Your task to perform on an android device: Go to sound settings Image 0: 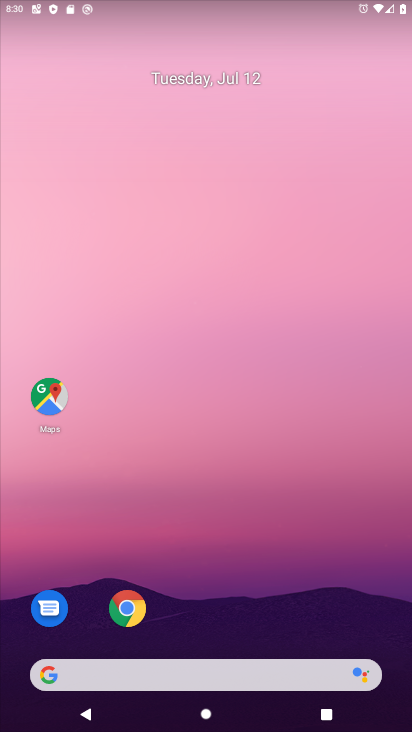
Step 0: drag from (247, 613) to (354, 0)
Your task to perform on an android device: Go to sound settings Image 1: 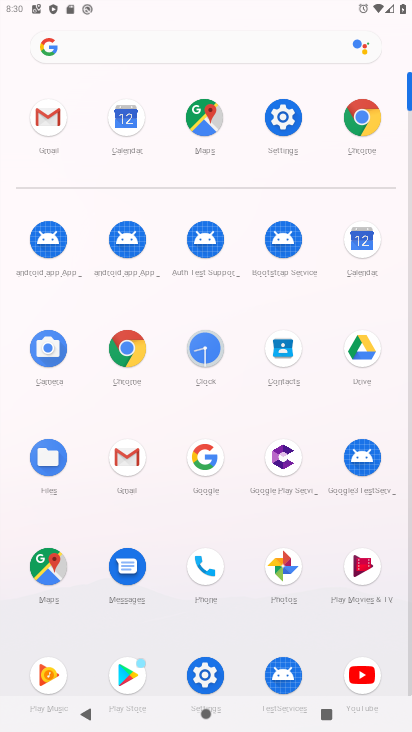
Step 1: click (286, 114)
Your task to perform on an android device: Go to sound settings Image 2: 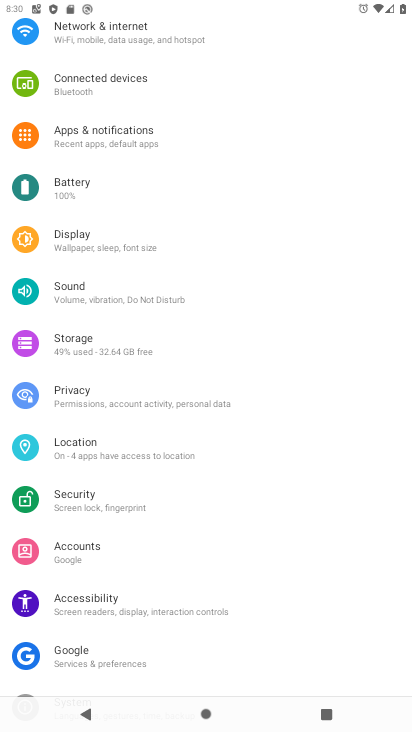
Step 2: click (104, 293)
Your task to perform on an android device: Go to sound settings Image 3: 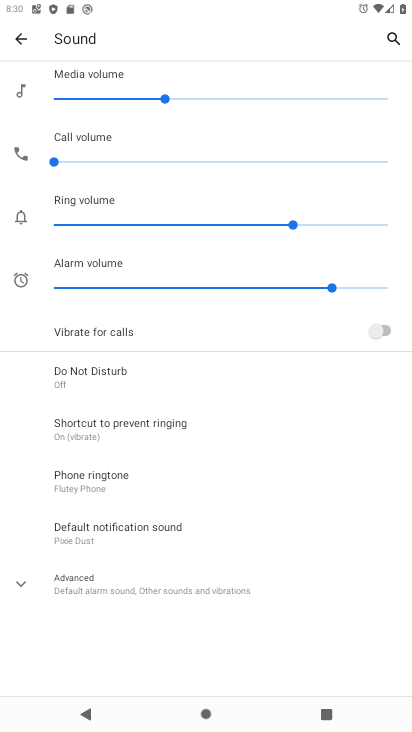
Step 3: task complete